Your task to perform on an android device: turn off location Image 0: 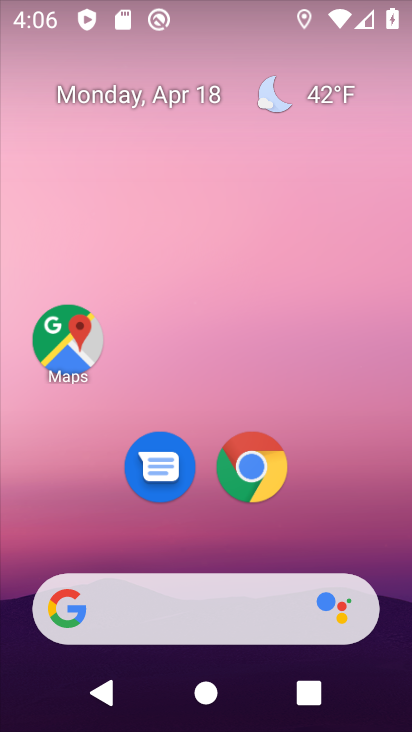
Step 0: drag from (195, 540) to (207, 118)
Your task to perform on an android device: turn off location Image 1: 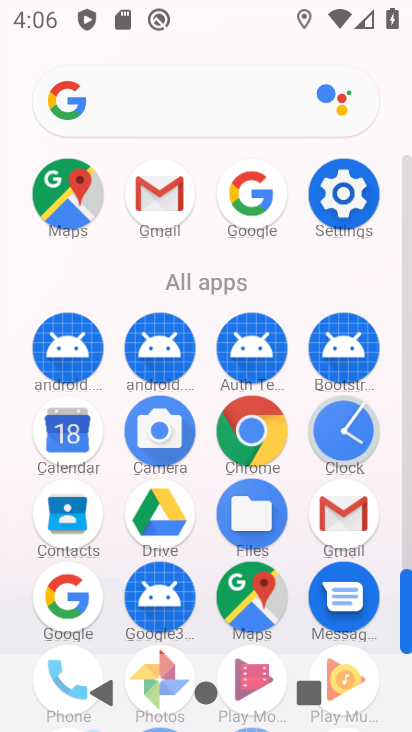
Step 1: click (330, 211)
Your task to perform on an android device: turn off location Image 2: 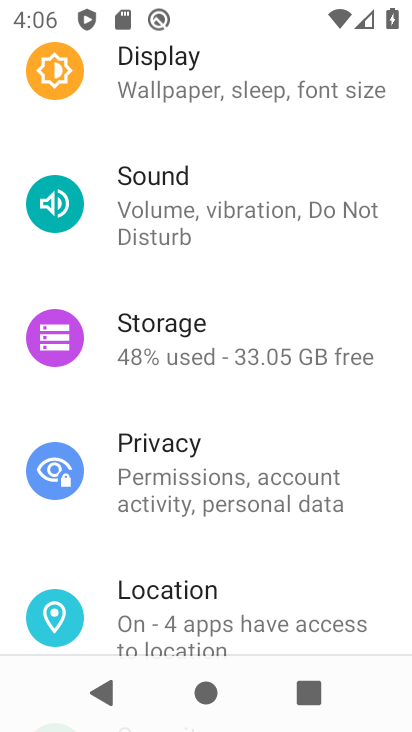
Step 2: drag from (249, 547) to (256, 260)
Your task to perform on an android device: turn off location Image 3: 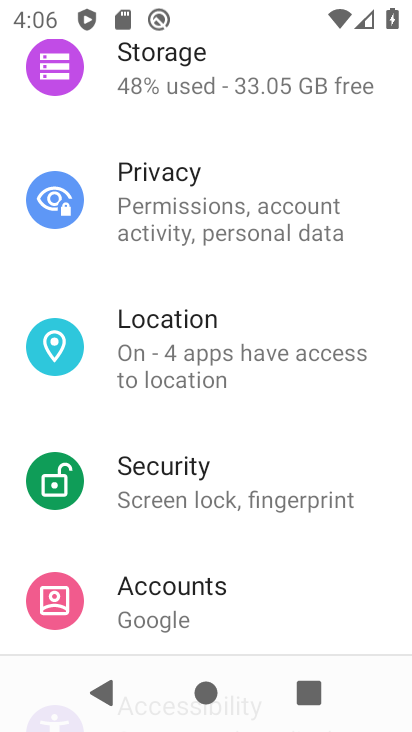
Step 3: click (212, 582)
Your task to perform on an android device: turn off location Image 4: 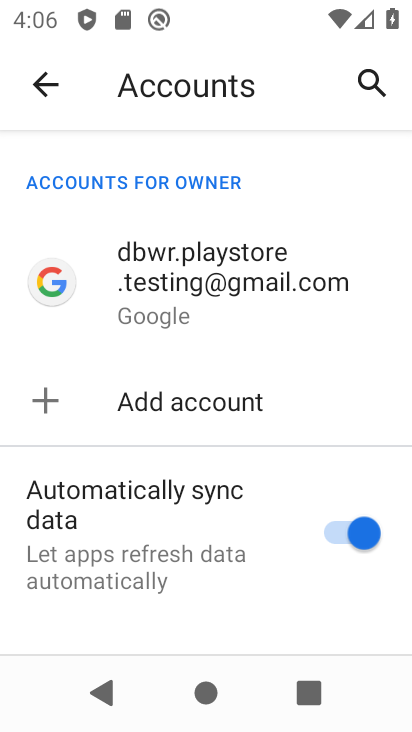
Step 4: click (48, 82)
Your task to perform on an android device: turn off location Image 5: 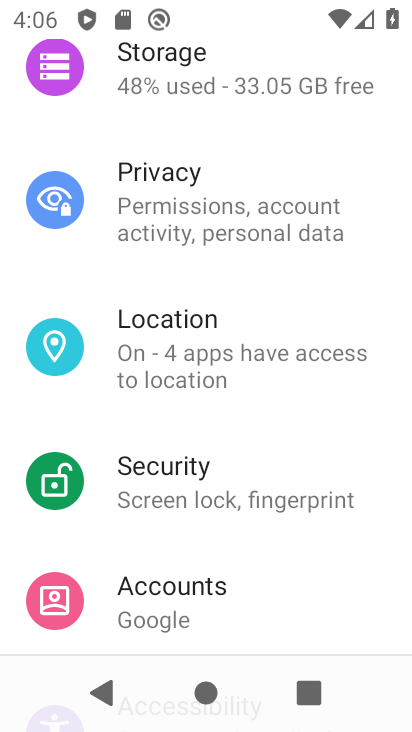
Step 5: click (214, 372)
Your task to perform on an android device: turn off location Image 6: 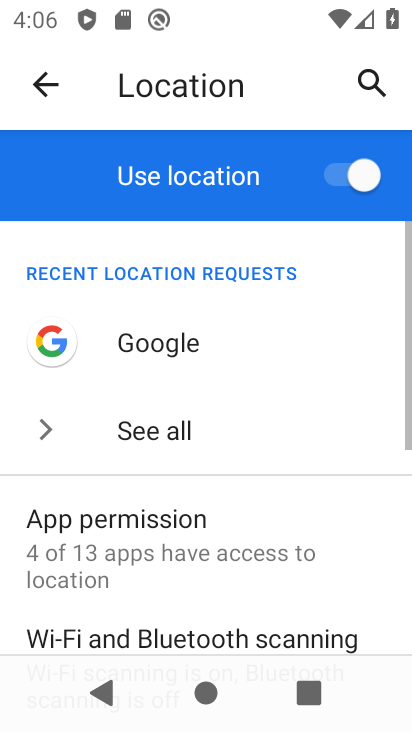
Step 6: click (239, 569)
Your task to perform on an android device: turn off location Image 7: 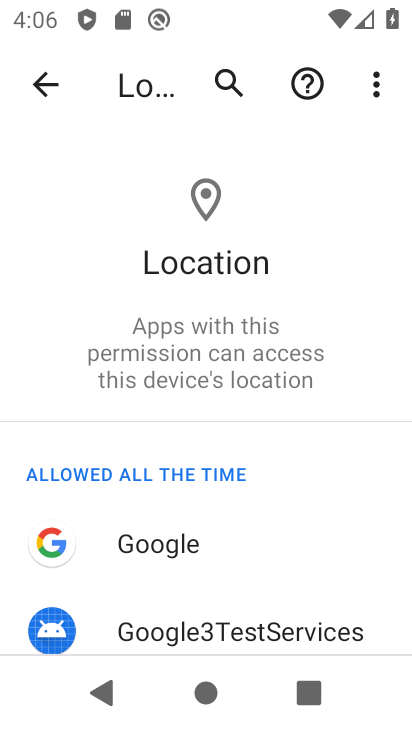
Step 7: click (55, 92)
Your task to perform on an android device: turn off location Image 8: 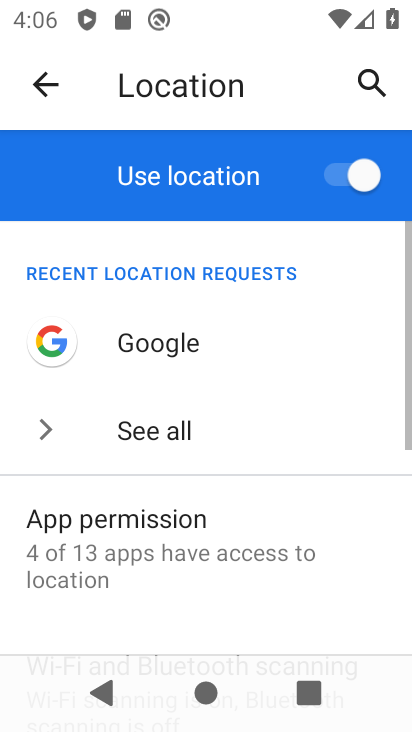
Step 8: click (339, 177)
Your task to perform on an android device: turn off location Image 9: 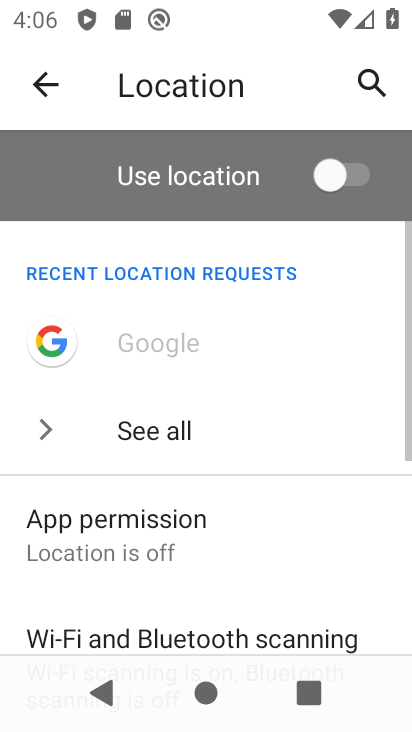
Step 9: task complete